Your task to perform on an android device: turn on the 24-hour format for clock Image 0: 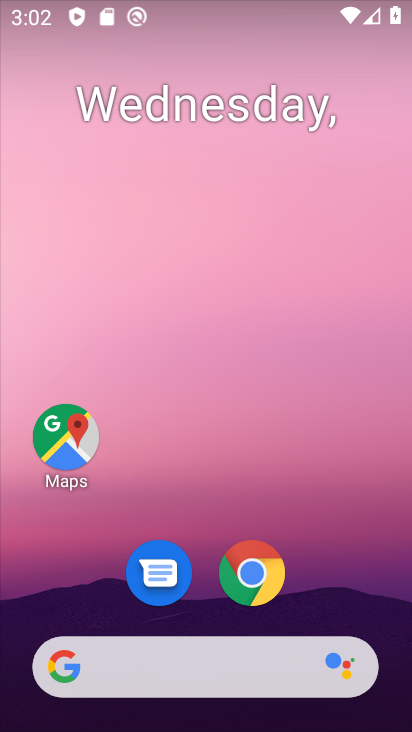
Step 0: drag from (228, 726) to (231, 160)
Your task to perform on an android device: turn on the 24-hour format for clock Image 1: 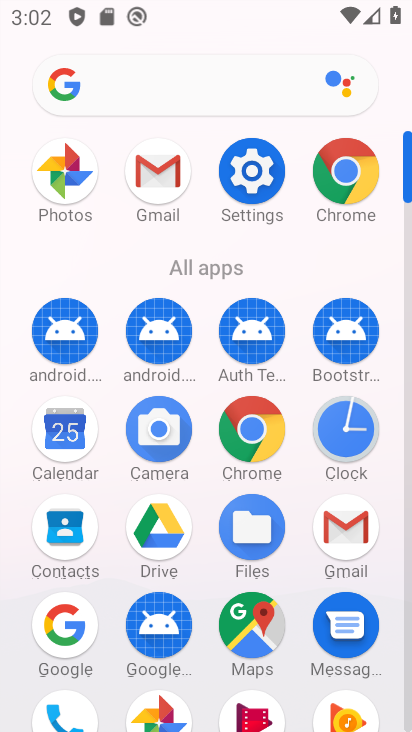
Step 1: click (335, 440)
Your task to perform on an android device: turn on the 24-hour format for clock Image 2: 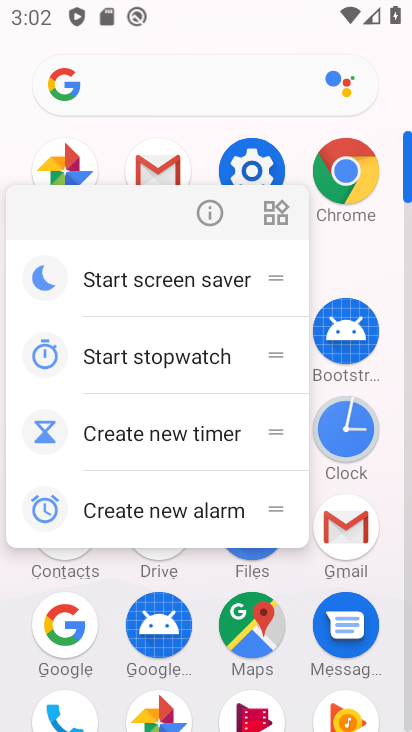
Step 2: click (342, 430)
Your task to perform on an android device: turn on the 24-hour format for clock Image 3: 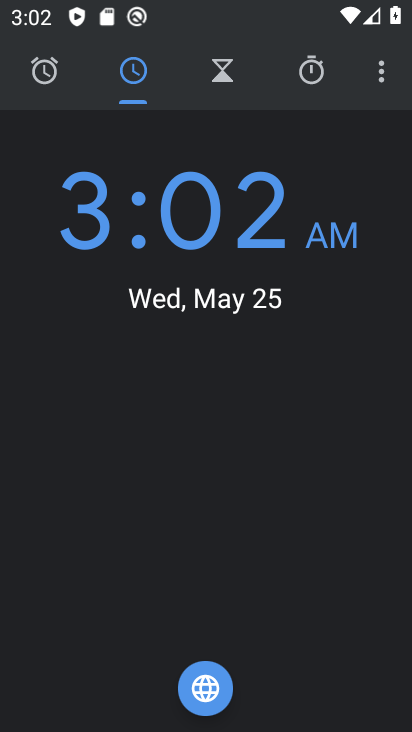
Step 3: click (382, 77)
Your task to perform on an android device: turn on the 24-hour format for clock Image 4: 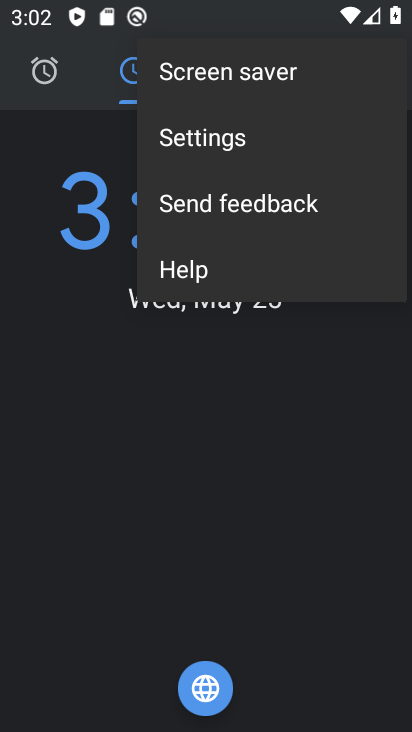
Step 4: click (202, 143)
Your task to perform on an android device: turn on the 24-hour format for clock Image 5: 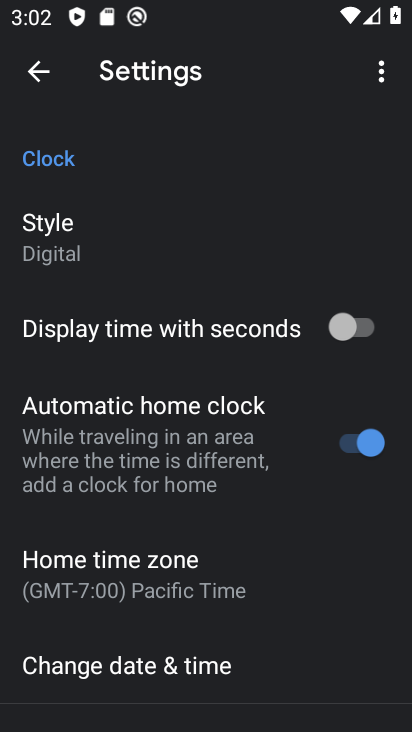
Step 5: drag from (126, 619) to (103, 205)
Your task to perform on an android device: turn on the 24-hour format for clock Image 6: 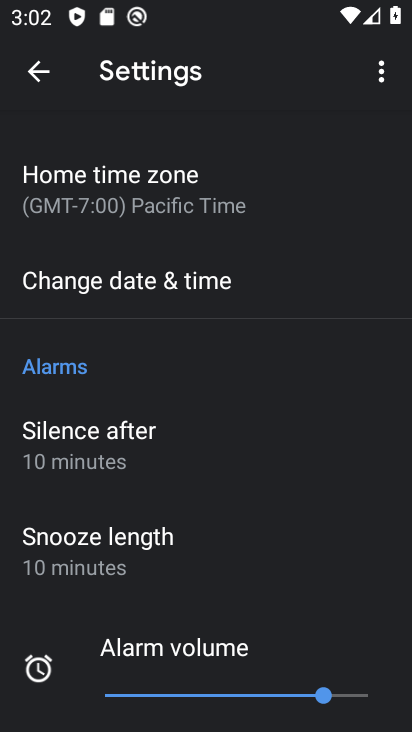
Step 6: click (130, 285)
Your task to perform on an android device: turn on the 24-hour format for clock Image 7: 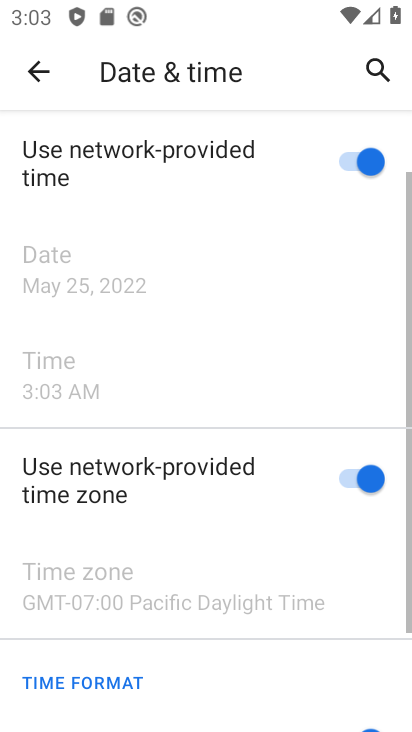
Step 7: drag from (155, 654) to (154, 305)
Your task to perform on an android device: turn on the 24-hour format for clock Image 8: 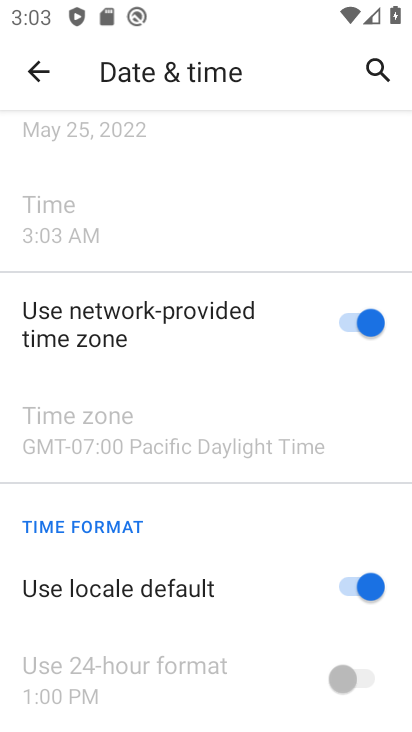
Step 8: click (351, 588)
Your task to perform on an android device: turn on the 24-hour format for clock Image 9: 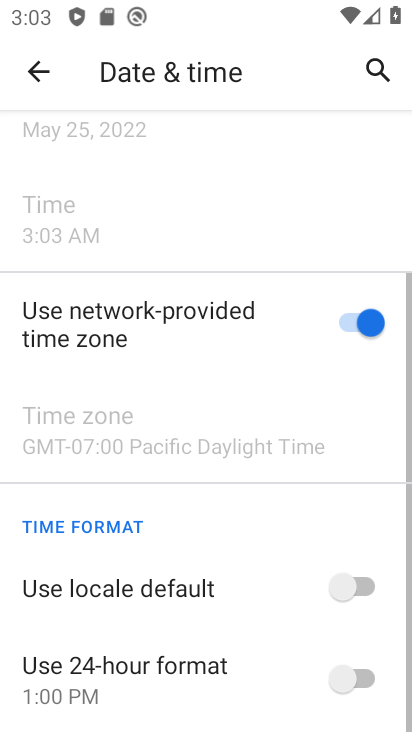
Step 9: click (368, 679)
Your task to perform on an android device: turn on the 24-hour format for clock Image 10: 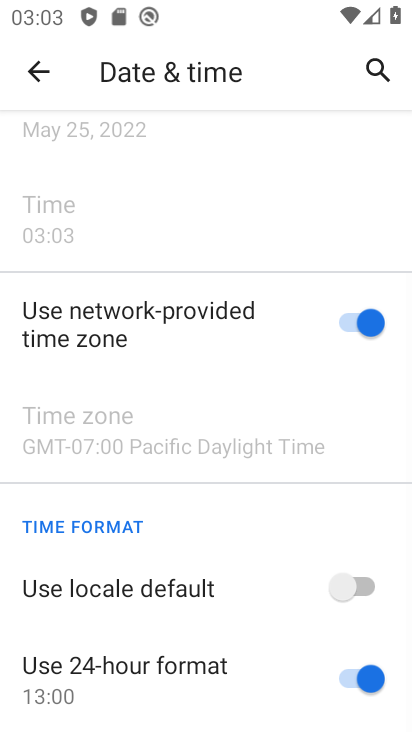
Step 10: task complete